Your task to perform on an android device: Look up the best rated coffee maker on Lowe's. Image 0: 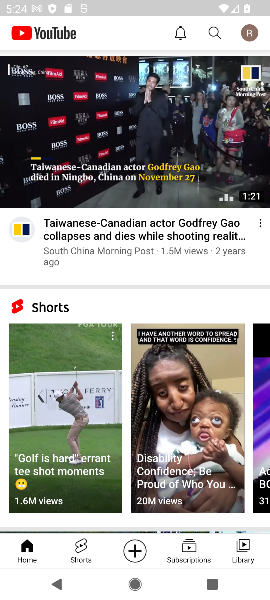
Step 0: press home button
Your task to perform on an android device: Look up the best rated coffee maker on Lowe's. Image 1: 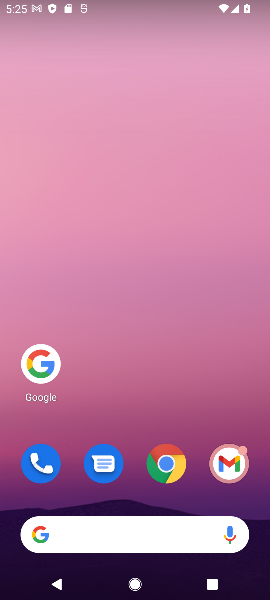
Step 1: click (41, 352)
Your task to perform on an android device: Look up the best rated coffee maker on Lowe's. Image 2: 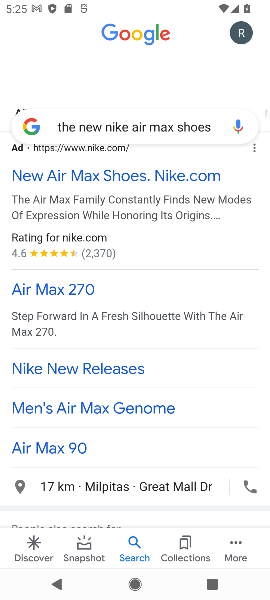
Step 2: click (124, 118)
Your task to perform on an android device: Look up the best rated coffee maker on Lowe's. Image 3: 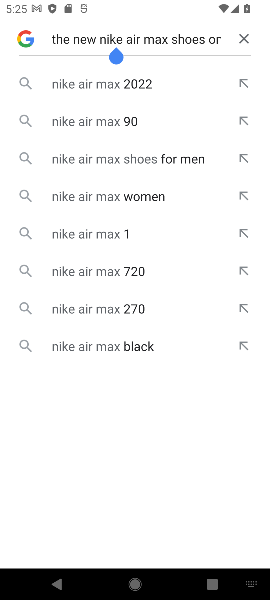
Step 3: click (249, 34)
Your task to perform on an android device: Look up the best rated coffee maker on Lowe's. Image 4: 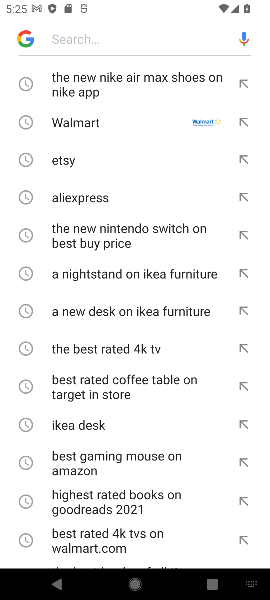
Step 4: click (129, 38)
Your task to perform on an android device: Look up the best rated coffee maker on Lowe's. Image 5: 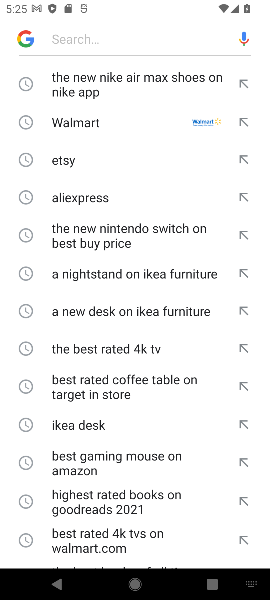
Step 5: type " the best rated coffee maker on Lowe's "
Your task to perform on an android device: Look up the best rated coffee maker on Lowe's. Image 6: 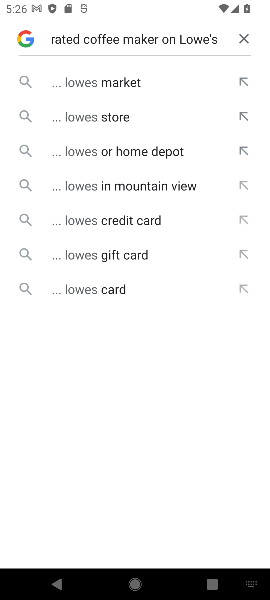
Step 6: click (79, 114)
Your task to perform on an android device: Look up the best rated coffee maker on Lowe's. Image 7: 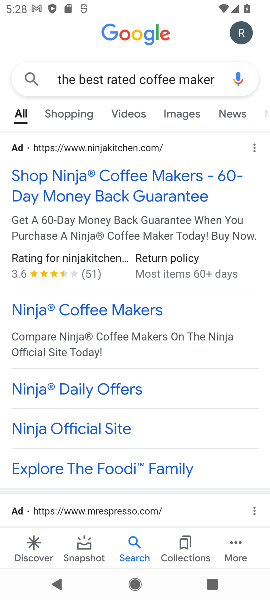
Step 7: drag from (137, 421) to (166, 131)
Your task to perform on an android device: Look up the best rated coffee maker on Lowe's. Image 8: 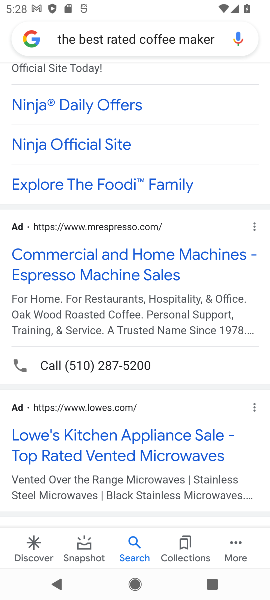
Step 8: click (63, 262)
Your task to perform on an android device: Look up the best rated coffee maker on Lowe's. Image 9: 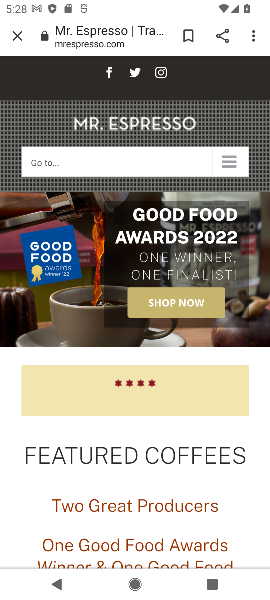
Step 9: task complete